Your task to perform on an android device: check android version Image 0: 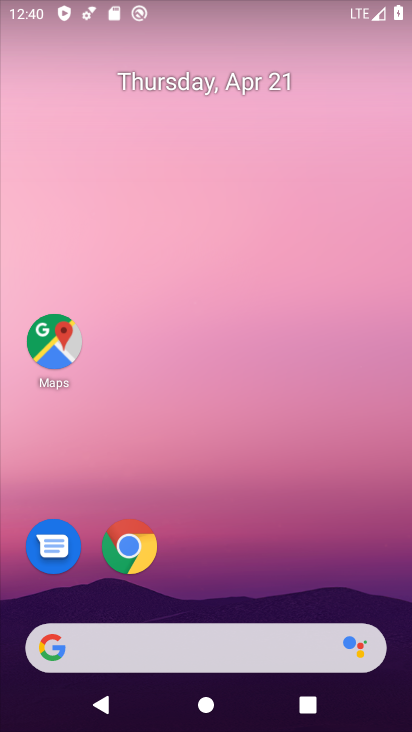
Step 0: drag from (345, 576) to (325, 113)
Your task to perform on an android device: check android version Image 1: 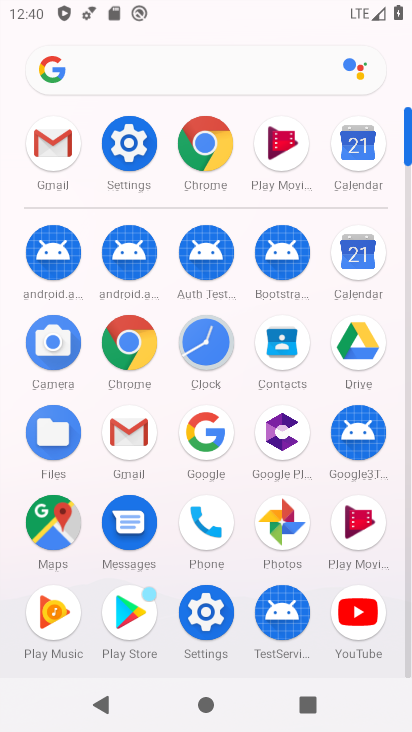
Step 1: click (127, 173)
Your task to perform on an android device: check android version Image 2: 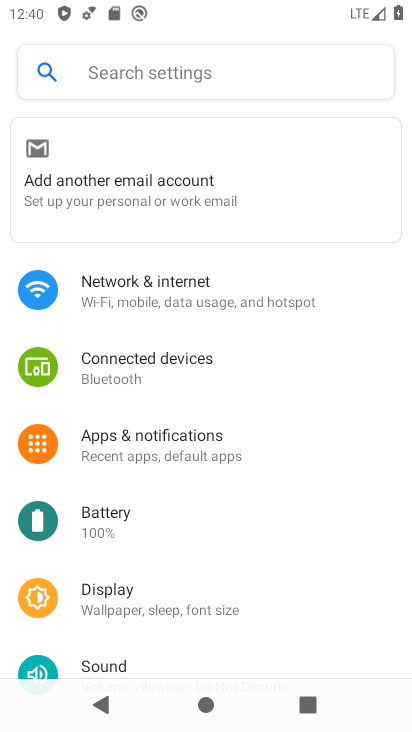
Step 2: drag from (151, 615) to (133, 368)
Your task to perform on an android device: check android version Image 3: 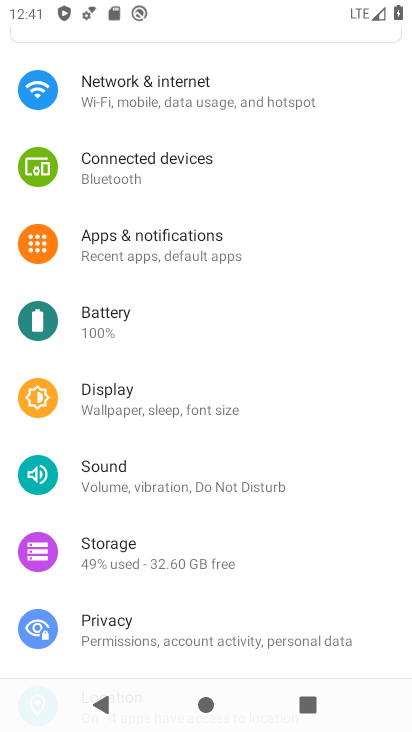
Step 3: drag from (107, 608) to (132, 180)
Your task to perform on an android device: check android version Image 4: 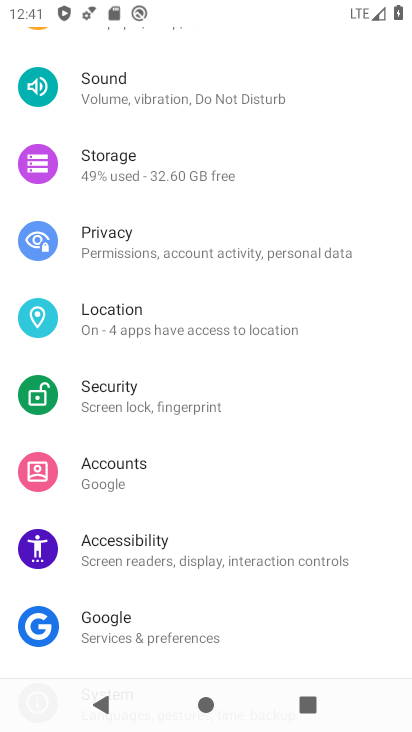
Step 4: drag from (198, 635) to (237, 292)
Your task to perform on an android device: check android version Image 5: 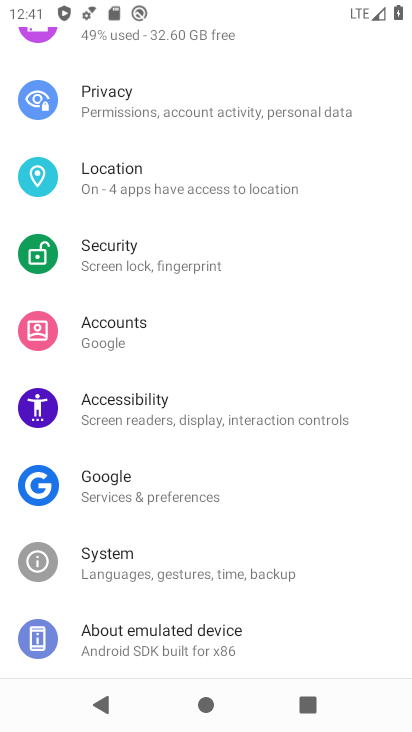
Step 5: click (191, 638)
Your task to perform on an android device: check android version Image 6: 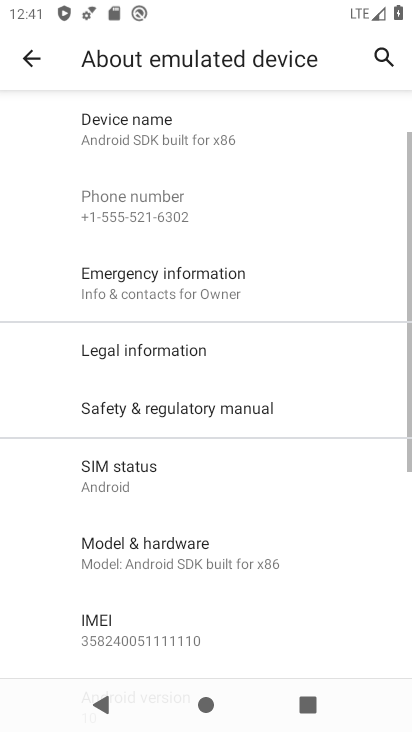
Step 6: task complete